Your task to perform on an android device: turn on showing notifications on the lock screen Image 0: 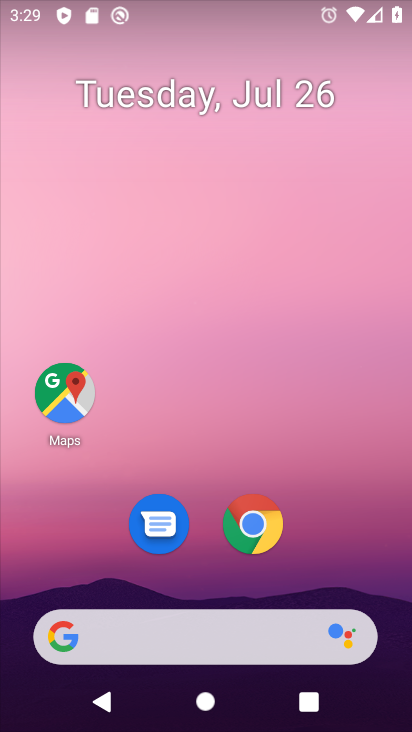
Step 0: drag from (345, 537) to (325, 56)
Your task to perform on an android device: turn on showing notifications on the lock screen Image 1: 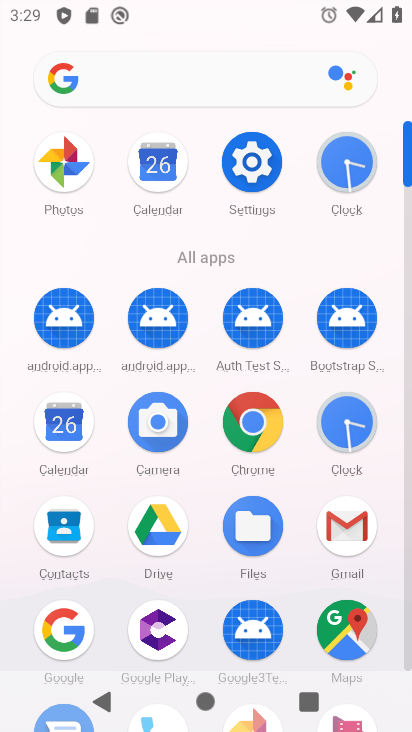
Step 1: click (267, 171)
Your task to perform on an android device: turn on showing notifications on the lock screen Image 2: 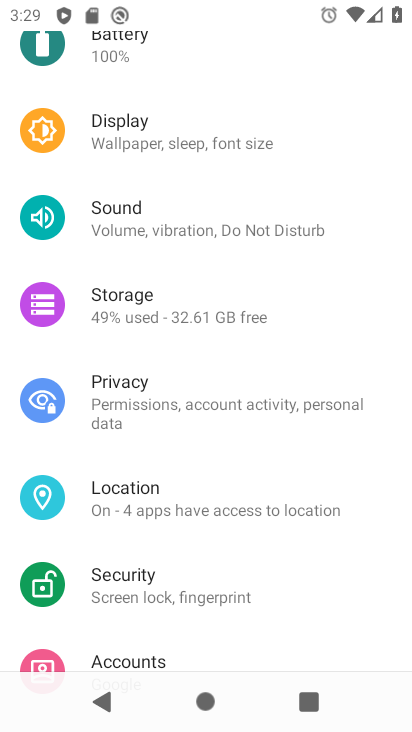
Step 2: click (191, 491)
Your task to perform on an android device: turn on showing notifications on the lock screen Image 3: 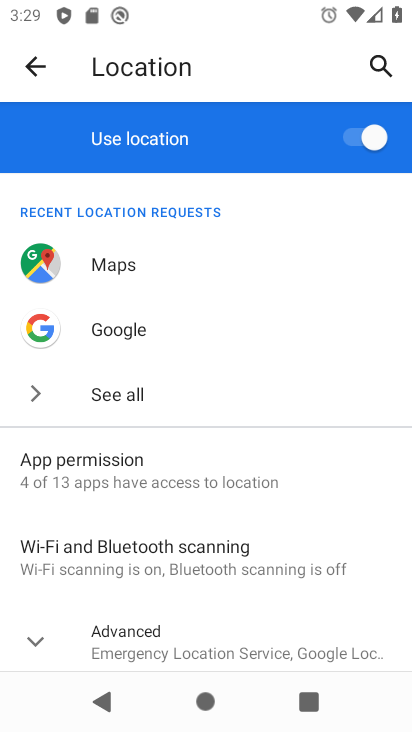
Step 3: press home button
Your task to perform on an android device: turn on showing notifications on the lock screen Image 4: 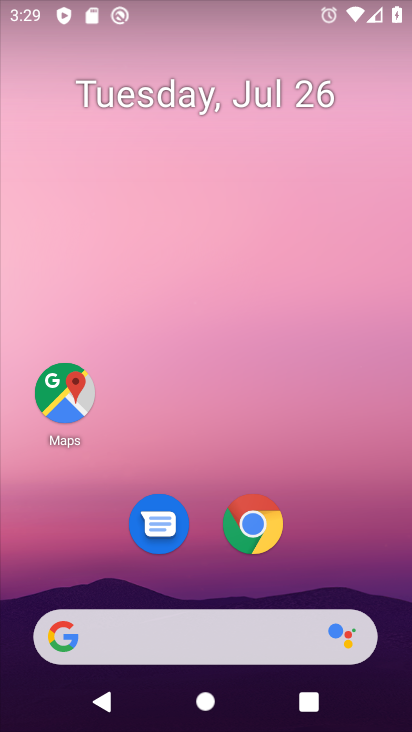
Step 4: drag from (315, 483) to (318, 40)
Your task to perform on an android device: turn on showing notifications on the lock screen Image 5: 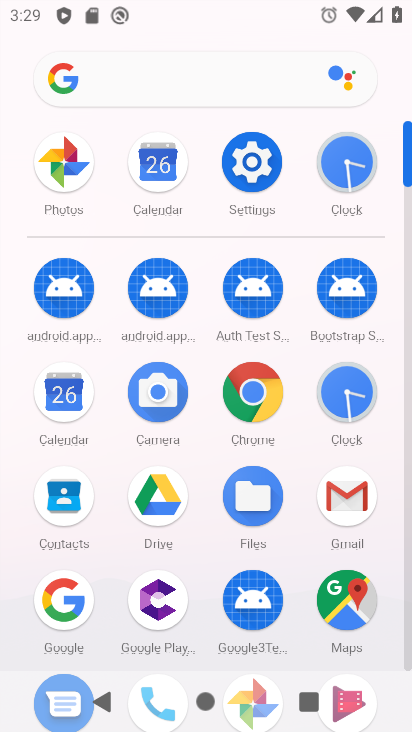
Step 5: click (261, 162)
Your task to perform on an android device: turn on showing notifications on the lock screen Image 6: 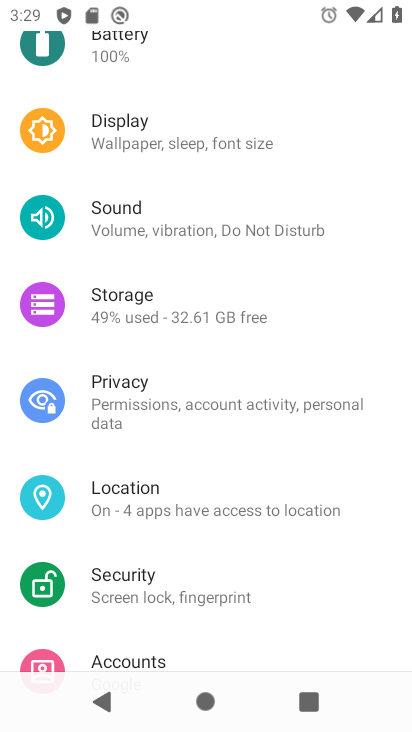
Step 6: drag from (219, 199) to (208, 560)
Your task to perform on an android device: turn on showing notifications on the lock screen Image 7: 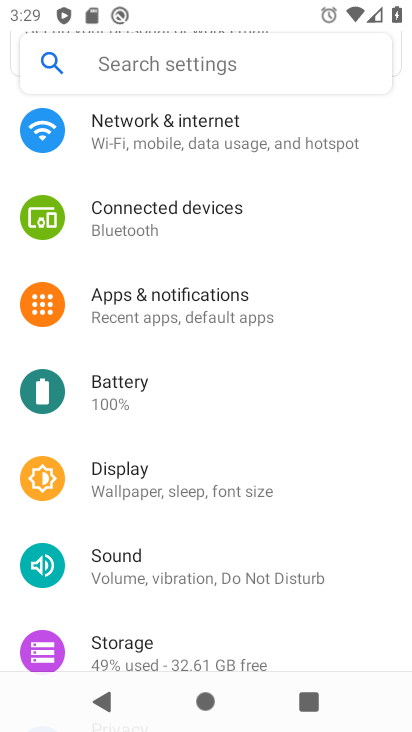
Step 7: click (217, 295)
Your task to perform on an android device: turn on showing notifications on the lock screen Image 8: 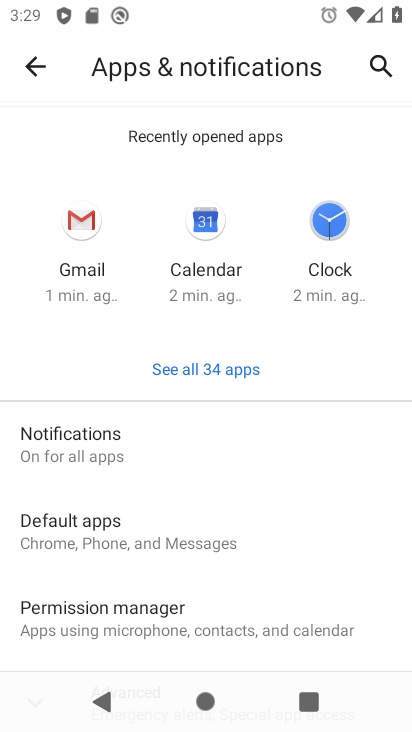
Step 8: click (83, 437)
Your task to perform on an android device: turn on showing notifications on the lock screen Image 9: 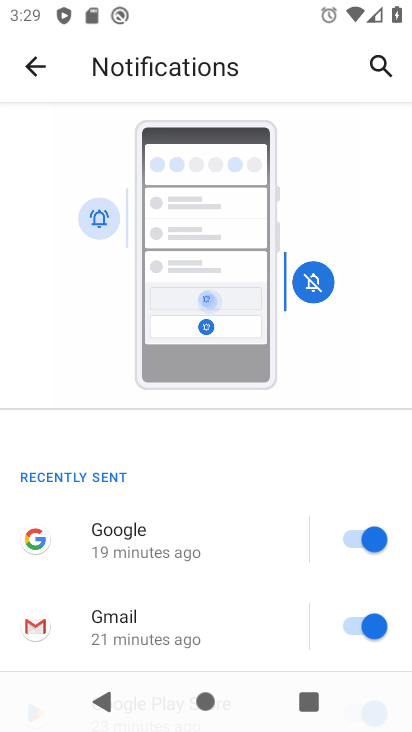
Step 9: drag from (206, 574) to (309, 30)
Your task to perform on an android device: turn on showing notifications on the lock screen Image 10: 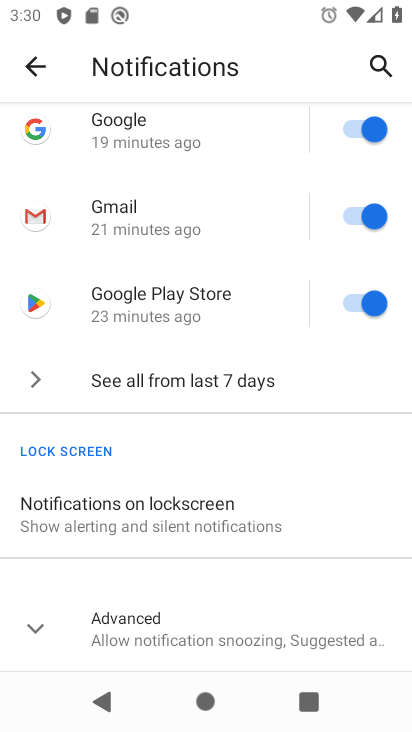
Step 10: click (160, 502)
Your task to perform on an android device: turn on showing notifications on the lock screen Image 11: 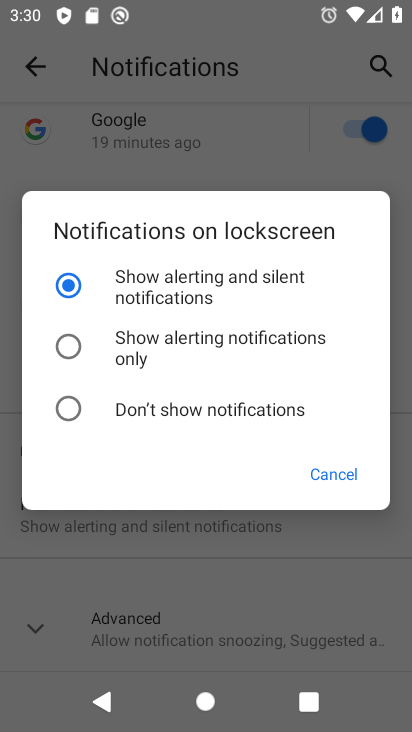
Step 11: click (208, 278)
Your task to perform on an android device: turn on showing notifications on the lock screen Image 12: 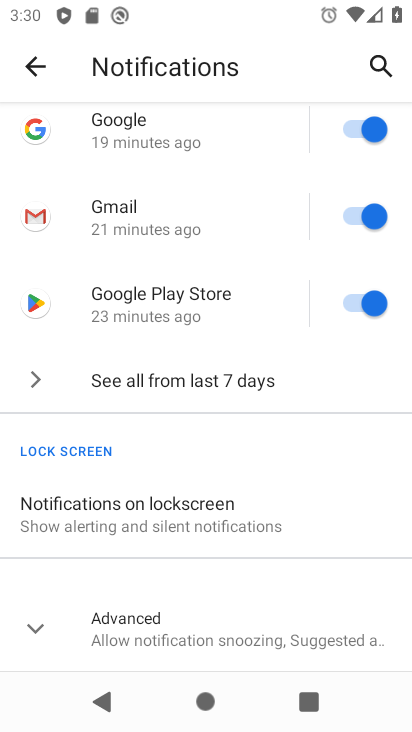
Step 12: task complete